Your task to perform on an android device: toggle notifications settings in the gmail app Image 0: 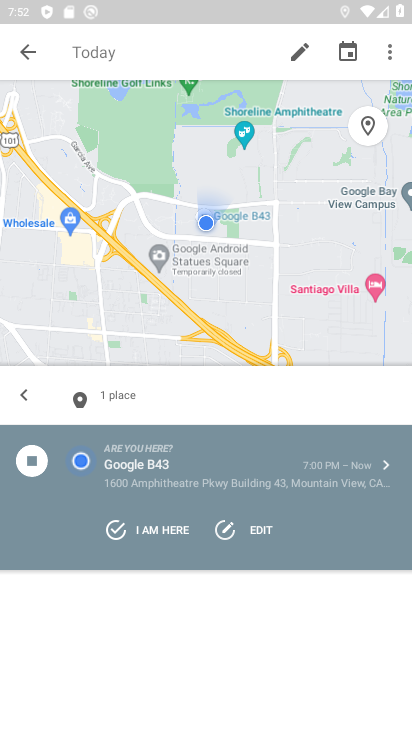
Step 0: drag from (226, 589) to (268, 296)
Your task to perform on an android device: toggle notifications settings in the gmail app Image 1: 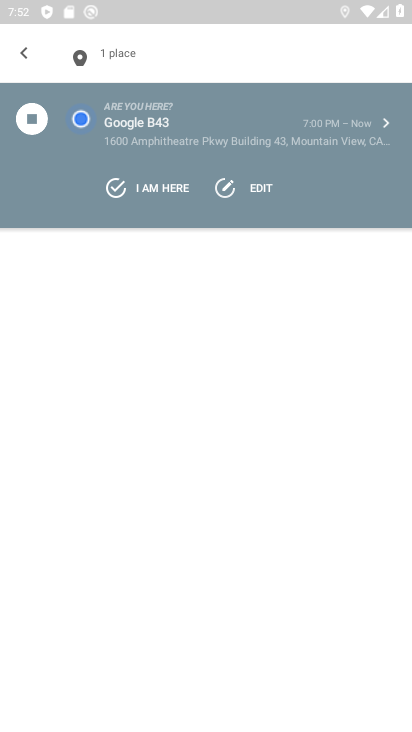
Step 1: press home button
Your task to perform on an android device: toggle notifications settings in the gmail app Image 2: 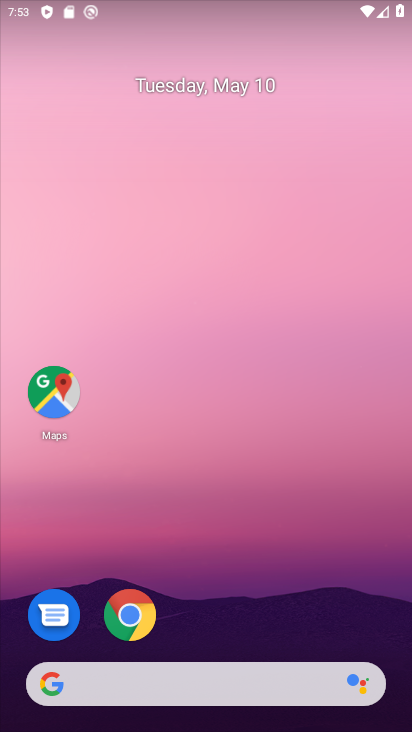
Step 2: drag from (222, 605) to (239, 178)
Your task to perform on an android device: toggle notifications settings in the gmail app Image 3: 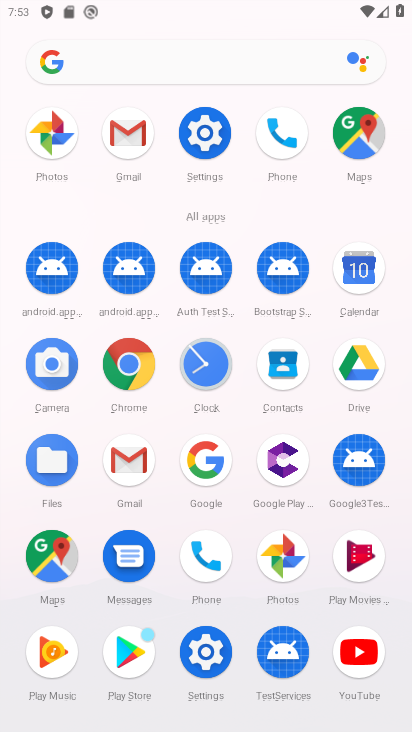
Step 3: click (116, 442)
Your task to perform on an android device: toggle notifications settings in the gmail app Image 4: 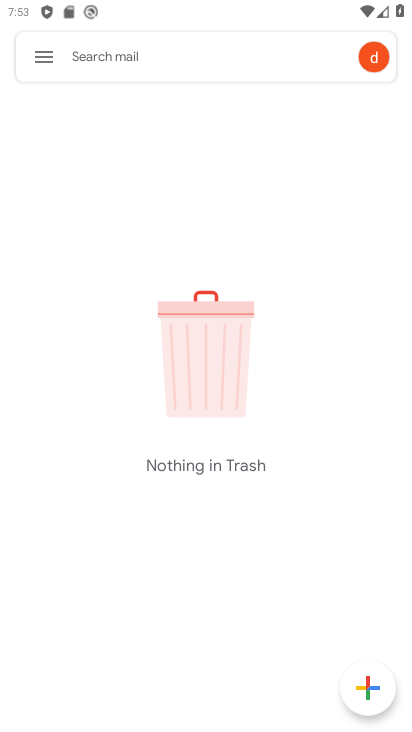
Step 4: drag from (237, 675) to (227, 424)
Your task to perform on an android device: toggle notifications settings in the gmail app Image 5: 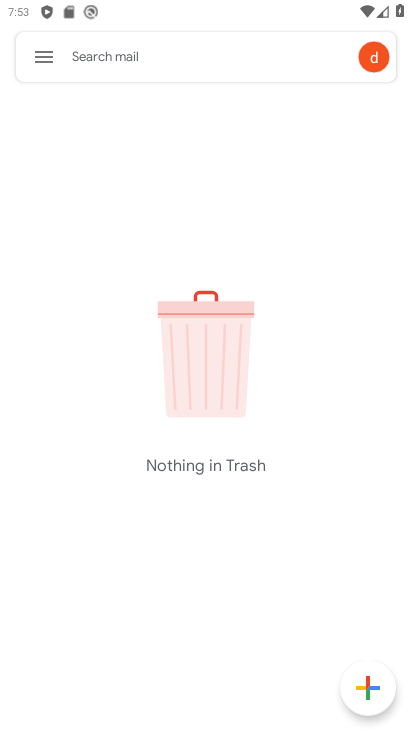
Step 5: click (38, 62)
Your task to perform on an android device: toggle notifications settings in the gmail app Image 6: 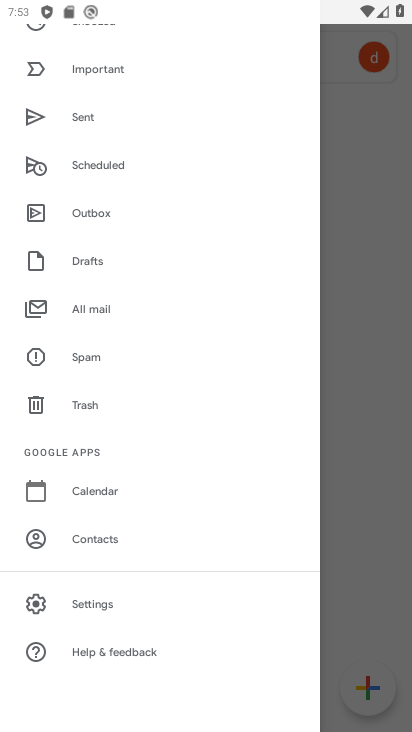
Step 6: click (103, 595)
Your task to perform on an android device: toggle notifications settings in the gmail app Image 7: 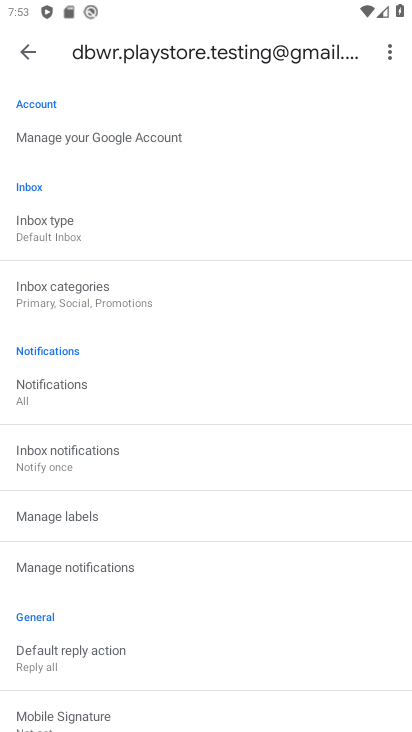
Step 7: drag from (199, 591) to (221, 347)
Your task to perform on an android device: toggle notifications settings in the gmail app Image 8: 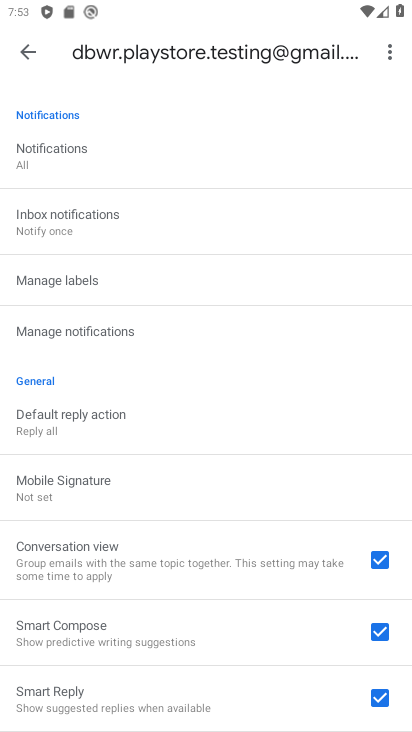
Step 8: click (153, 330)
Your task to perform on an android device: toggle notifications settings in the gmail app Image 9: 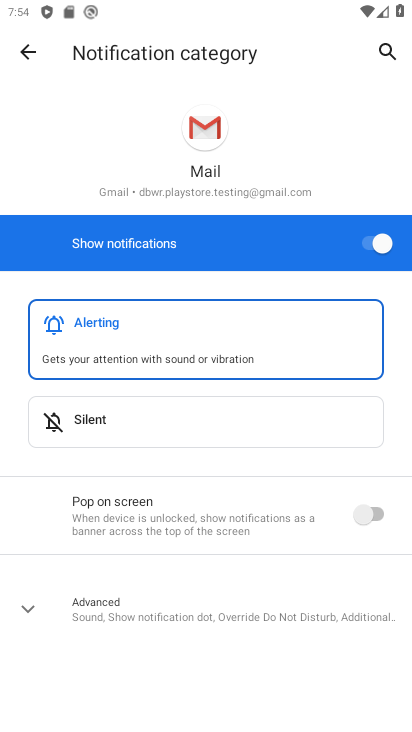
Step 9: drag from (232, 563) to (254, 353)
Your task to perform on an android device: toggle notifications settings in the gmail app Image 10: 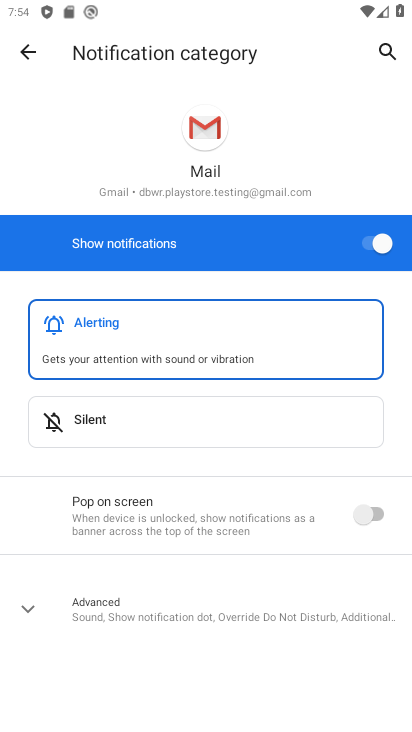
Step 10: click (368, 250)
Your task to perform on an android device: toggle notifications settings in the gmail app Image 11: 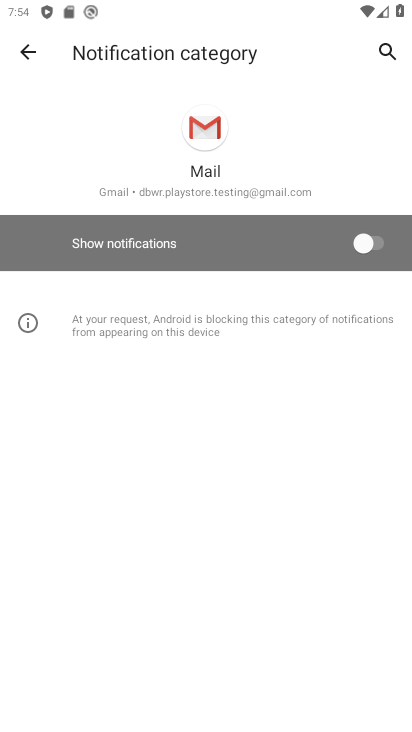
Step 11: task complete